Your task to perform on an android device: Show me recent news Image 0: 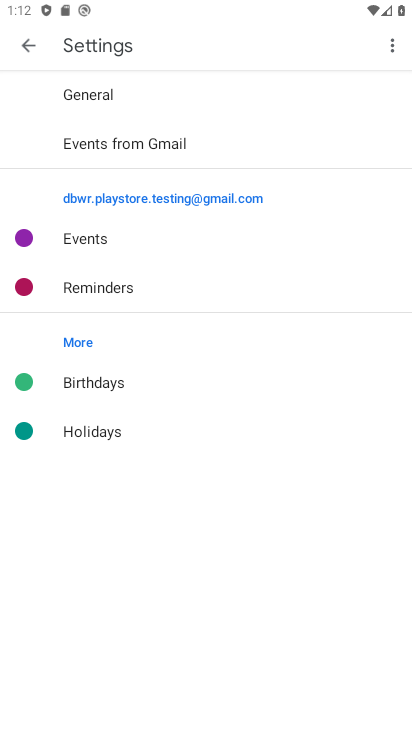
Step 0: press home button
Your task to perform on an android device: Show me recent news Image 1: 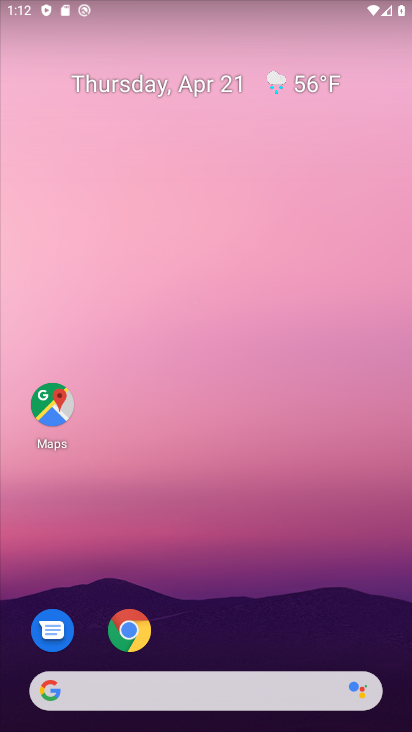
Step 1: task complete